Your task to perform on an android device: Open internet settings Image 0: 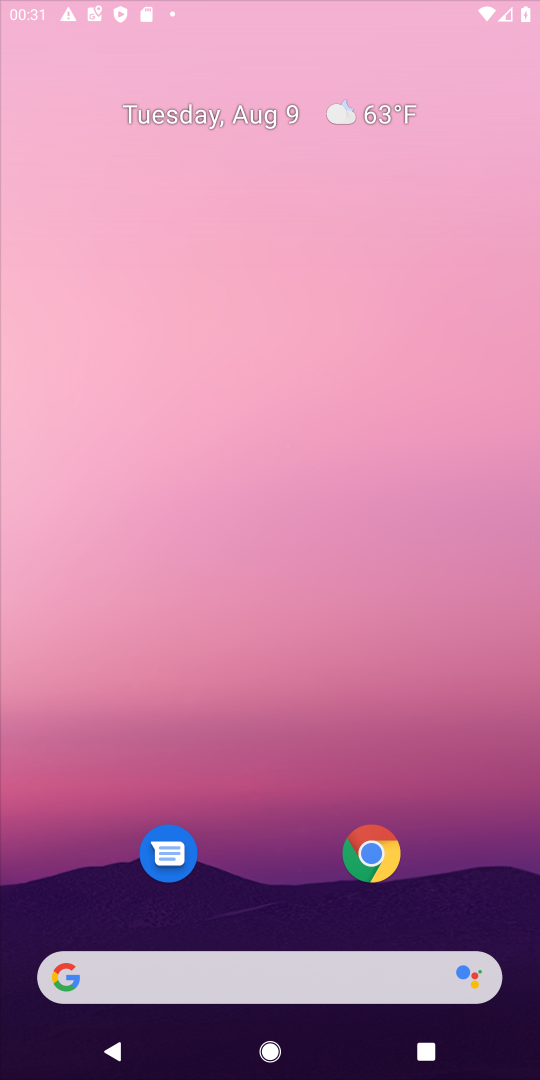
Step 0: press home button
Your task to perform on an android device: Open internet settings Image 1: 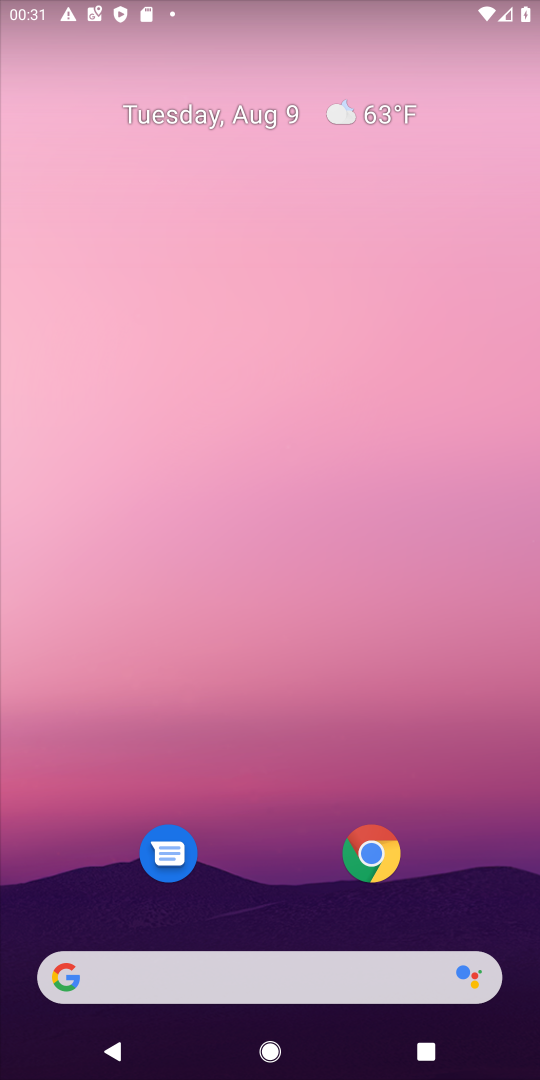
Step 1: drag from (262, 827) to (296, 33)
Your task to perform on an android device: Open internet settings Image 2: 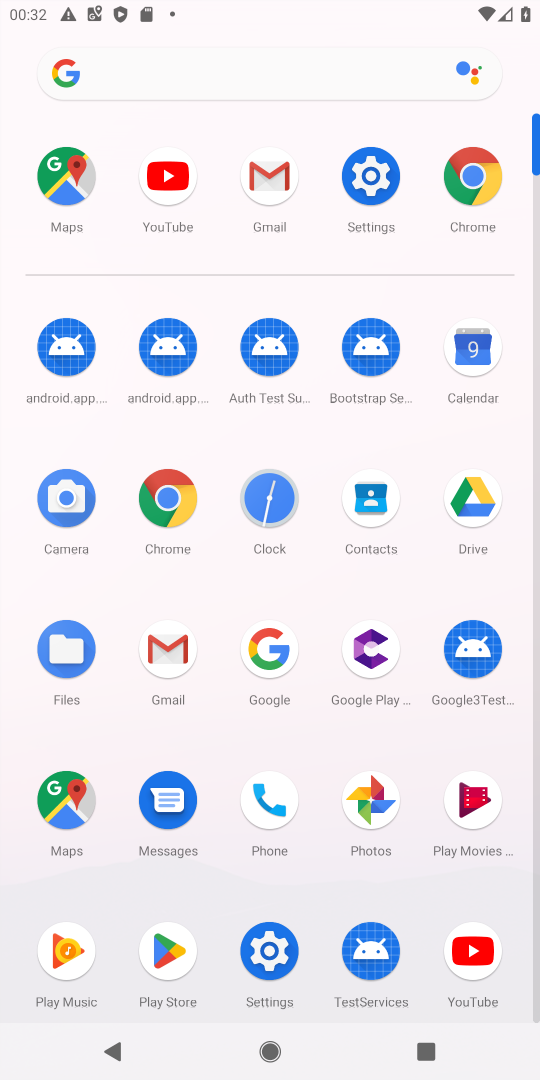
Step 2: click (375, 170)
Your task to perform on an android device: Open internet settings Image 3: 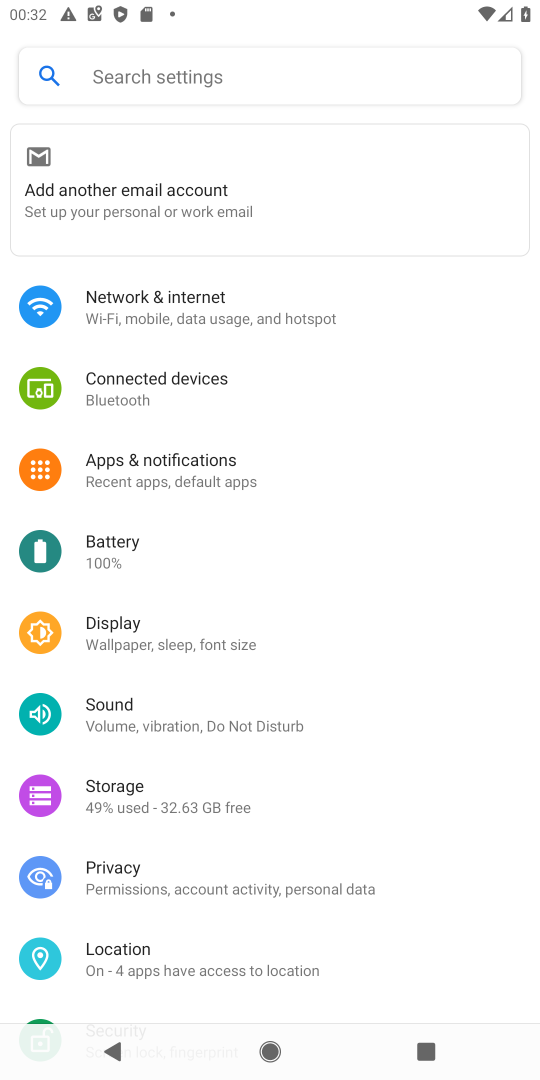
Step 3: click (229, 303)
Your task to perform on an android device: Open internet settings Image 4: 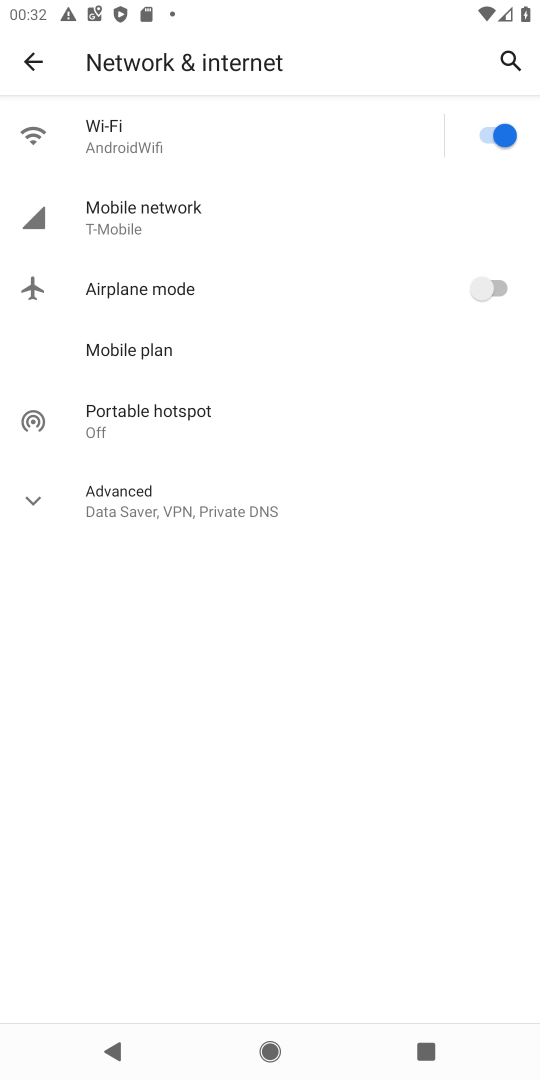
Step 4: click (148, 229)
Your task to perform on an android device: Open internet settings Image 5: 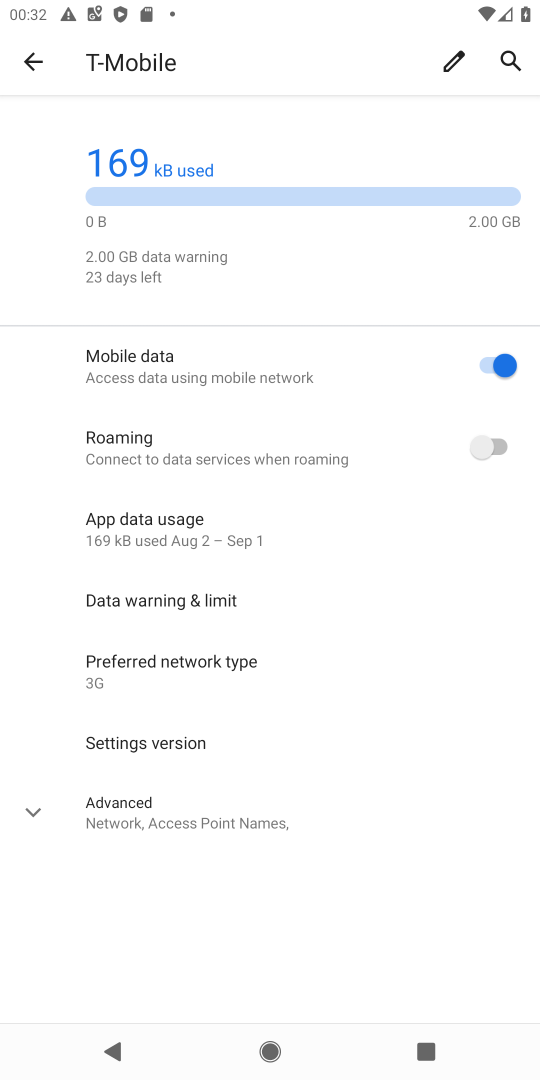
Step 5: task complete